Your task to perform on an android device: open chrome and create a bookmark for the current page Image 0: 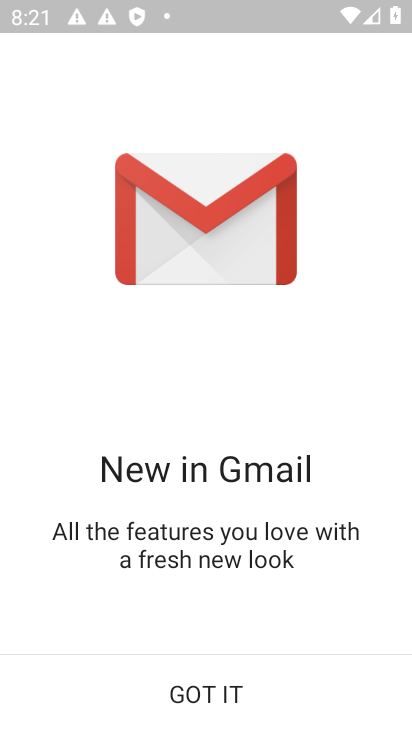
Step 0: press home button
Your task to perform on an android device: open chrome and create a bookmark for the current page Image 1: 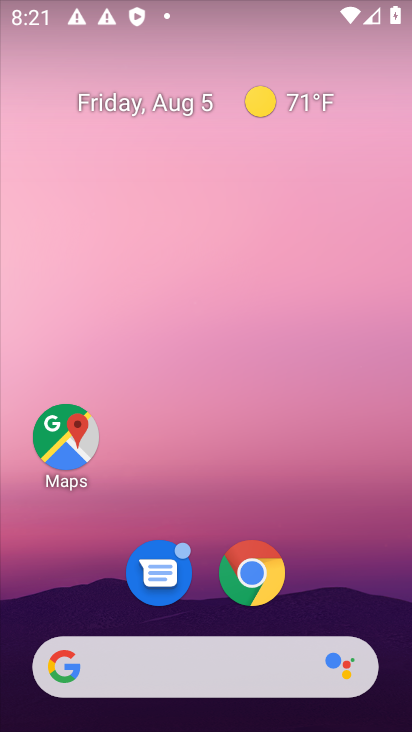
Step 1: click (245, 566)
Your task to perform on an android device: open chrome and create a bookmark for the current page Image 2: 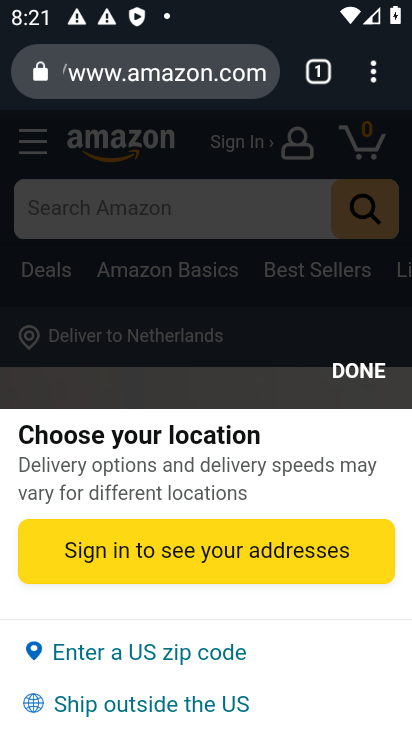
Step 2: click (352, 366)
Your task to perform on an android device: open chrome and create a bookmark for the current page Image 3: 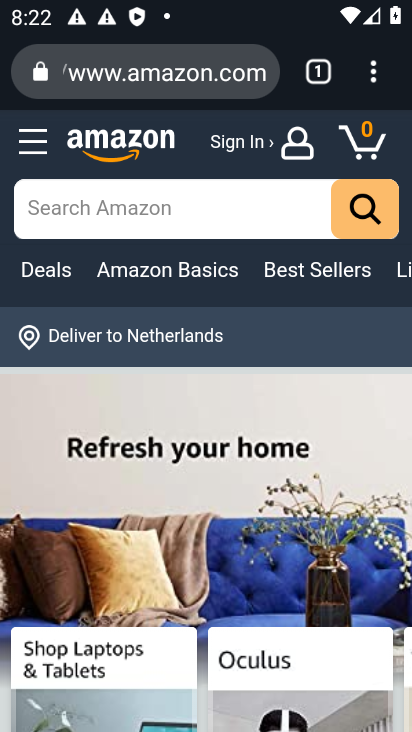
Step 3: click (366, 72)
Your task to perform on an android device: open chrome and create a bookmark for the current page Image 4: 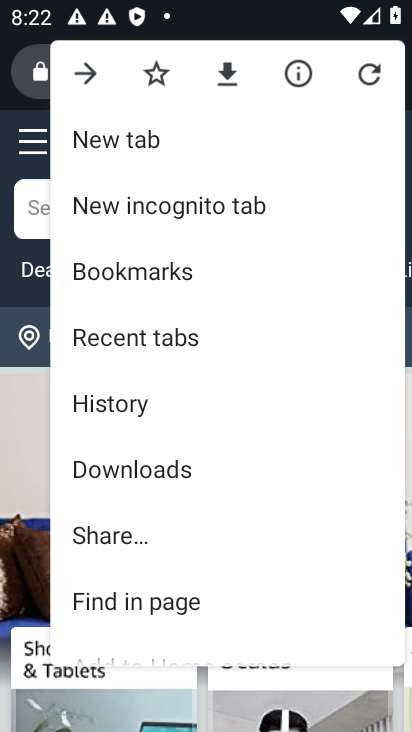
Step 4: click (156, 73)
Your task to perform on an android device: open chrome and create a bookmark for the current page Image 5: 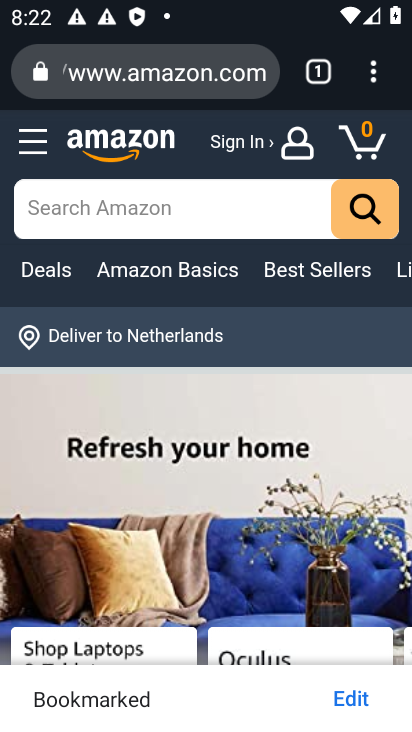
Step 5: task complete